Your task to perform on an android device: delete location history Image 0: 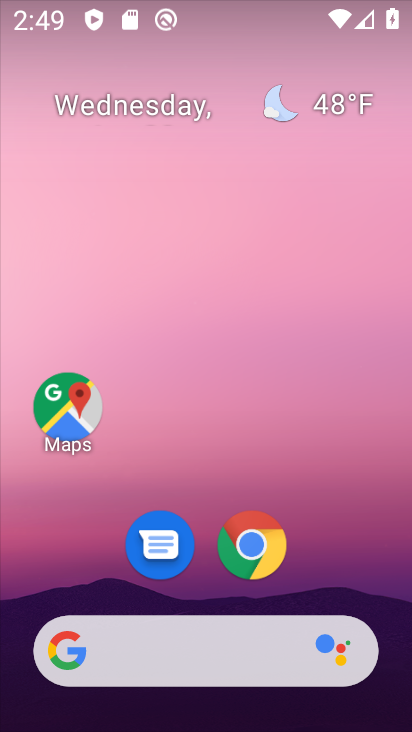
Step 0: drag from (206, 485) to (187, 45)
Your task to perform on an android device: delete location history Image 1: 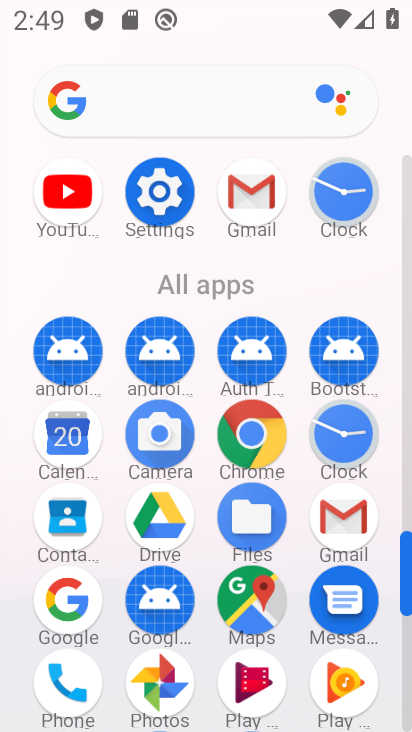
Step 1: click (175, 194)
Your task to perform on an android device: delete location history Image 2: 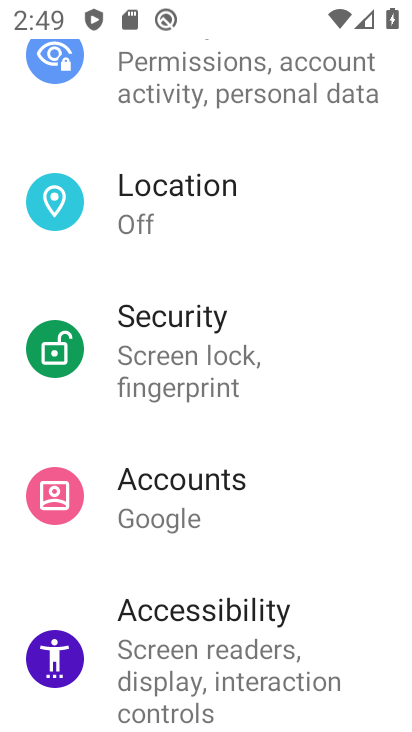
Step 2: drag from (273, 586) to (273, 351)
Your task to perform on an android device: delete location history Image 3: 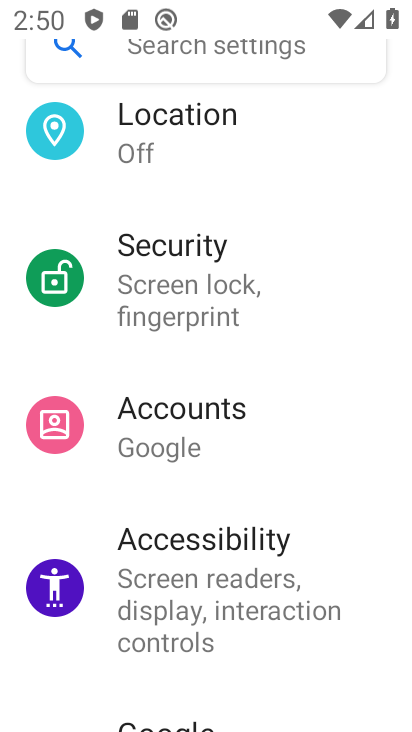
Step 3: click (219, 155)
Your task to perform on an android device: delete location history Image 4: 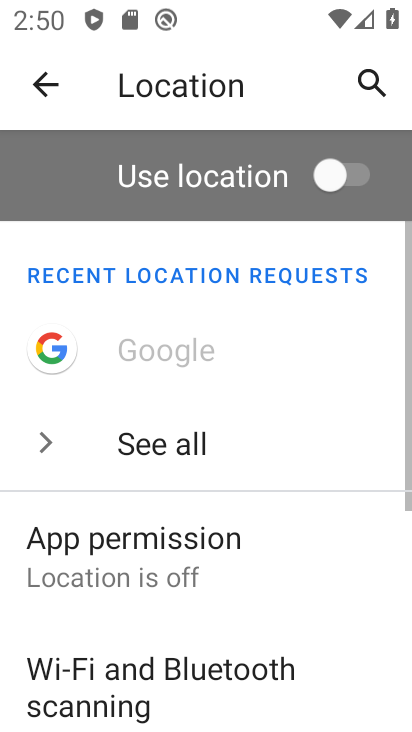
Step 4: drag from (218, 564) to (243, 83)
Your task to perform on an android device: delete location history Image 5: 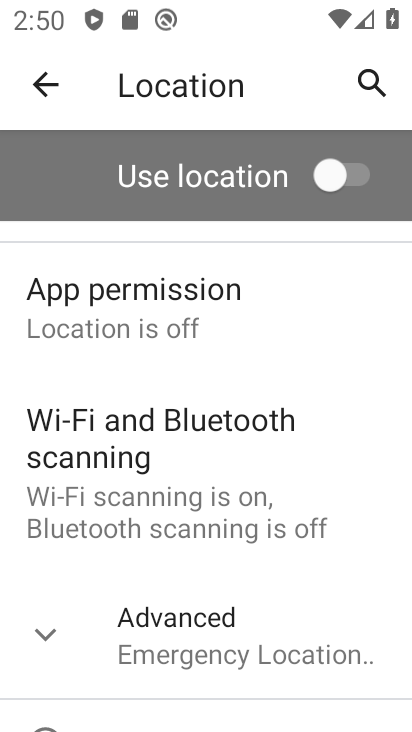
Step 5: click (192, 641)
Your task to perform on an android device: delete location history Image 6: 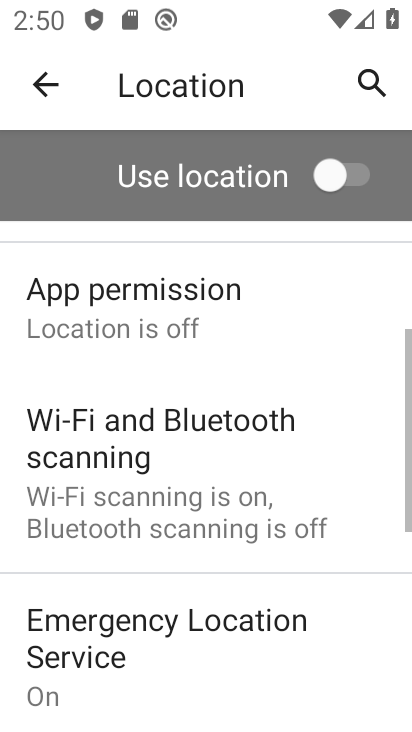
Step 6: drag from (191, 641) to (199, 116)
Your task to perform on an android device: delete location history Image 7: 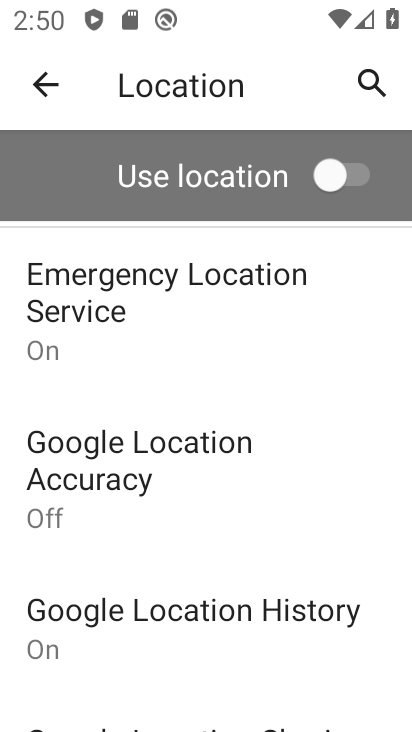
Step 7: click (285, 645)
Your task to perform on an android device: delete location history Image 8: 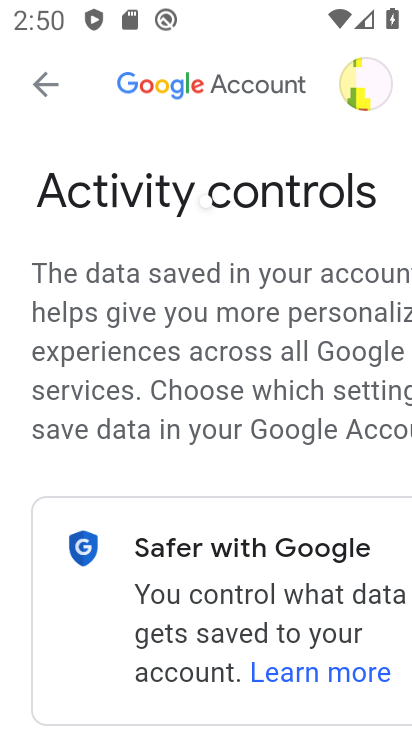
Step 8: drag from (285, 645) to (335, 134)
Your task to perform on an android device: delete location history Image 9: 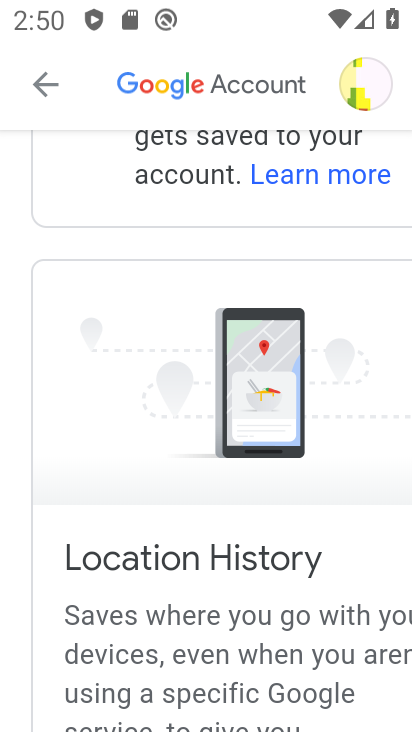
Step 9: drag from (250, 616) to (305, 119)
Your task to perform on an android device: delete location history Image 10: 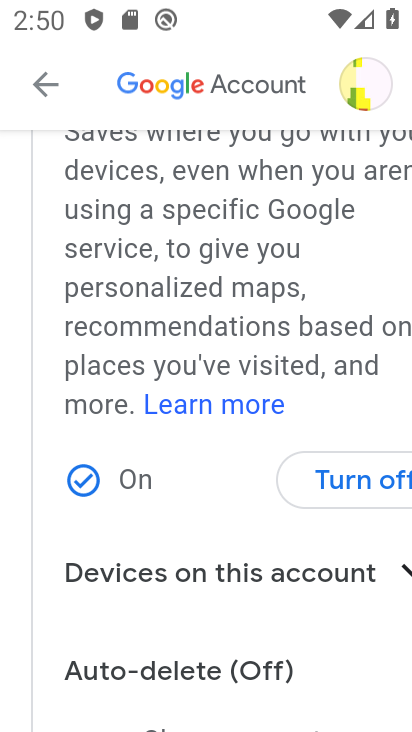
Step 10: drag from (238, 557) to (231, 53)
Your task to perform on an android device: delete location history Image 11: 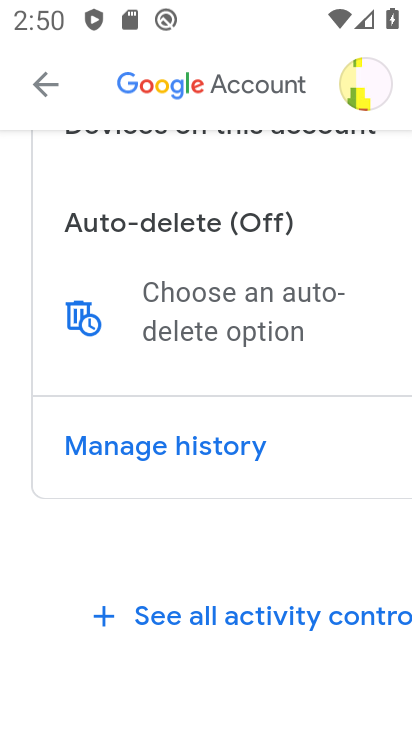
Step 11: click (72, 305)
Your task to perform on an android device: delete location history Image 12: 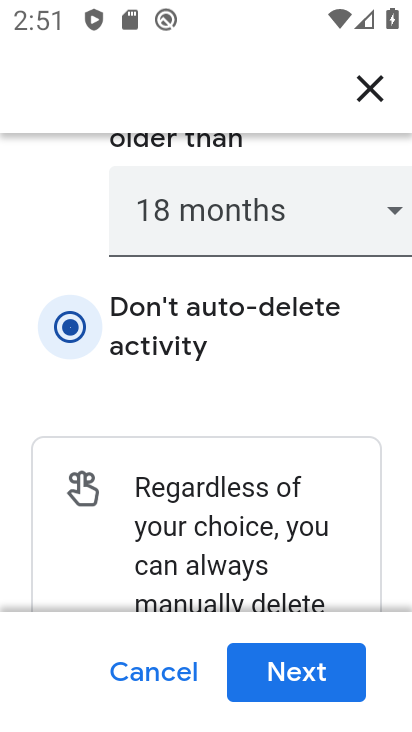
Step 12: click (311, 670)
Your task to perform on an android device: delete location history Image 13: 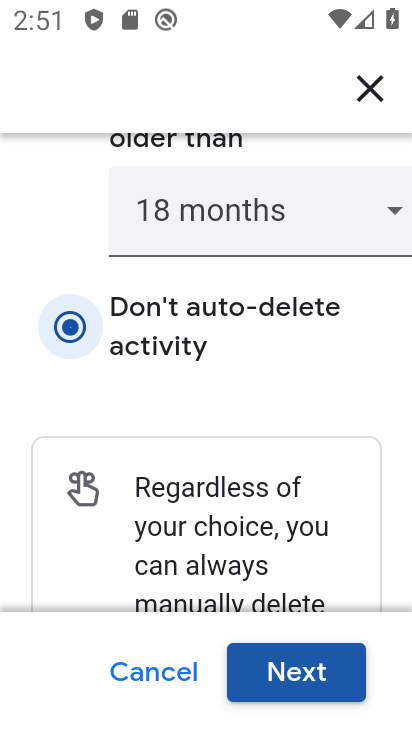
Step 13: drag from (320, 550) to (258, 94)
Your task to perform on an android device: delete location history Image 14: 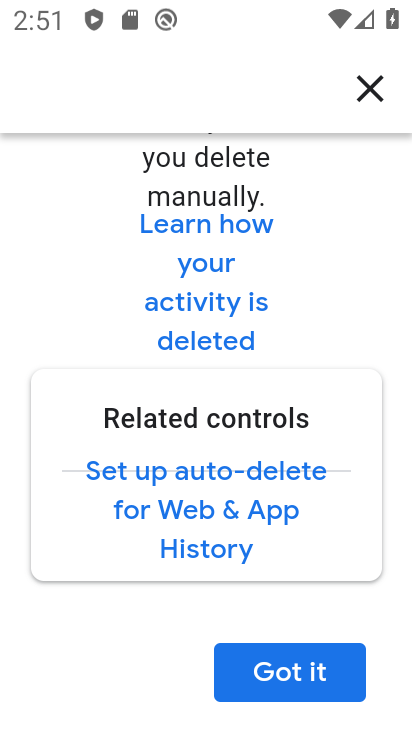
Step 14: click (264, 679)
Your task to perform on an android device: delete location history Image 15: 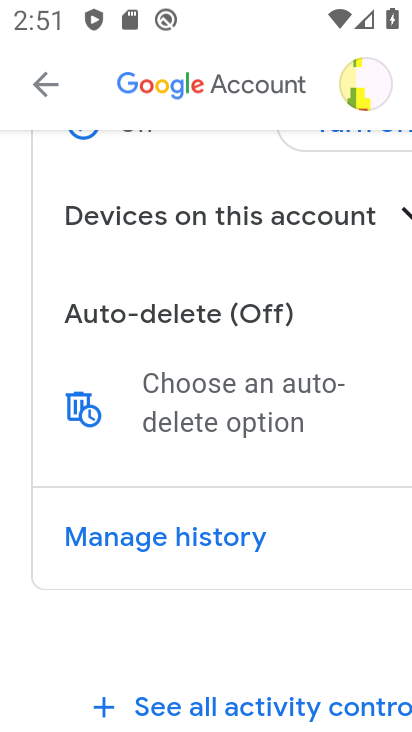
Step 15: task complete